Your task to perform on an android device: Open notification settings Image 0: 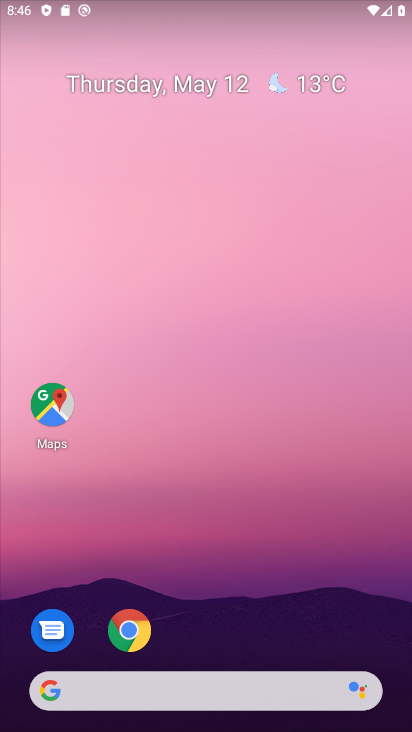
Step 0: drag from (226, 694) to (261, 307)
Your task to perform on an android device: Open notification settings Image 1: 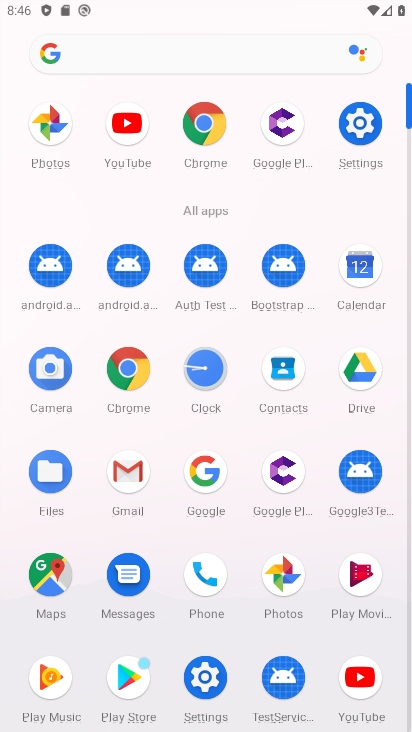
Step 1: click (366, 111)
Your task to perform on an android device: Open notification settings Image 2: 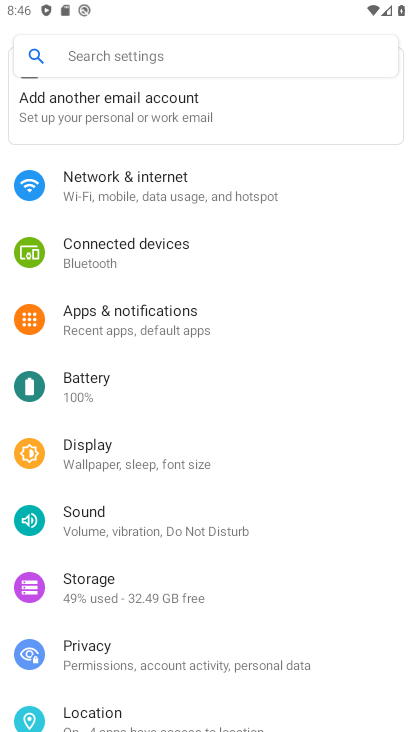
Step 2: click (114, 337)
Your task to perform on an android device: Open notification settings Image 3: 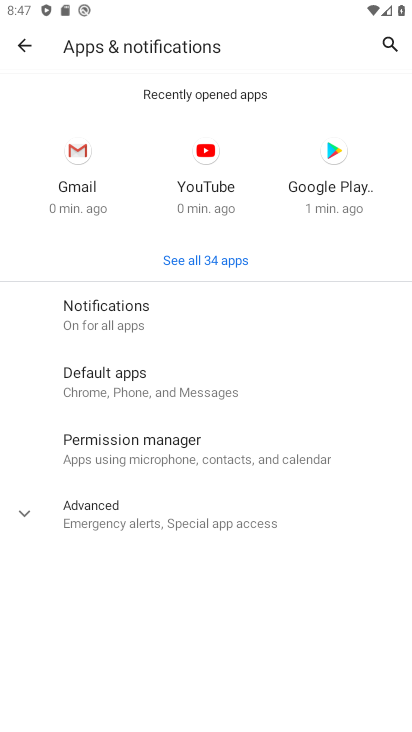
Step 3: task complete